Your task to perform on an android device: Go to wifi settings Image 0: 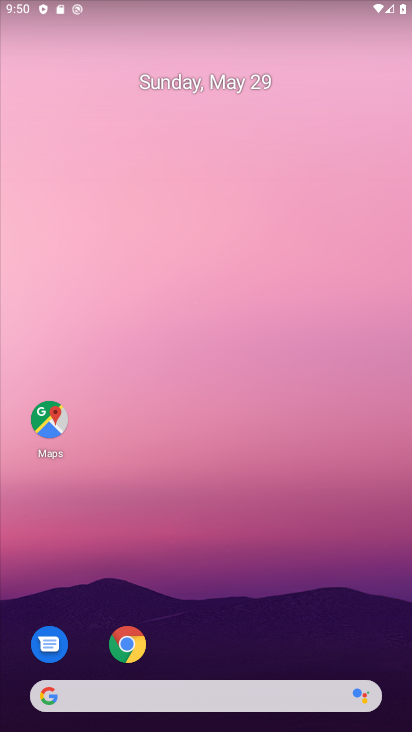
Step 0: drag from (124, 726) to (141, 119)
Your task to perform on an android device: Go to wifi settings Image 1: 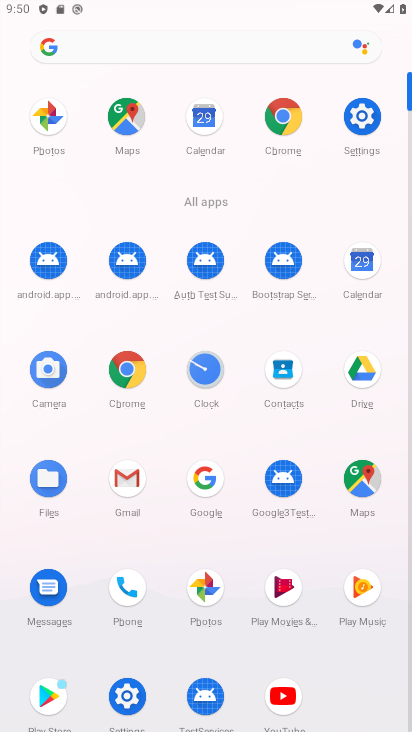
Step 1: click (369, 124)
Your task to perform on an android device: Go to wifi settings Image 2: 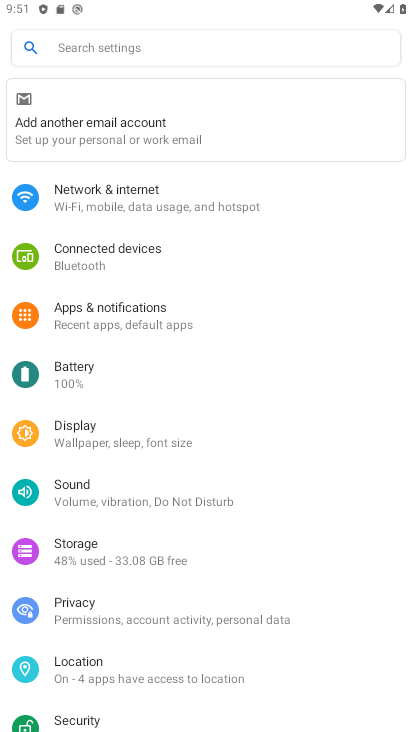
Step 2: click (73, 188)
Your task to perform on an android device: Go to wifi settings Image 3: 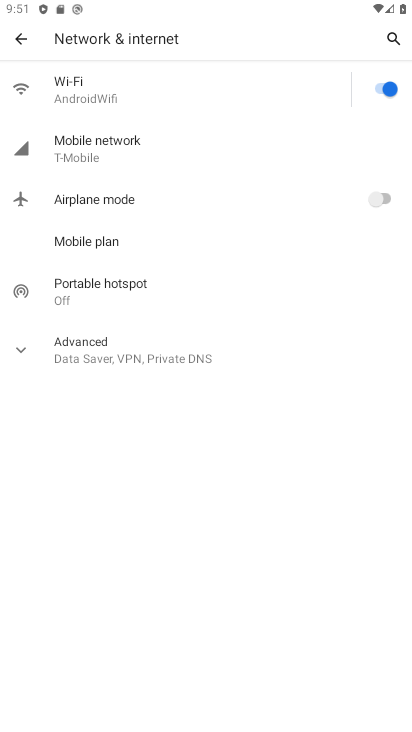
Step 3: click (141, 106)
Your task to perform on an android device: Go to wifi settings Image 4: 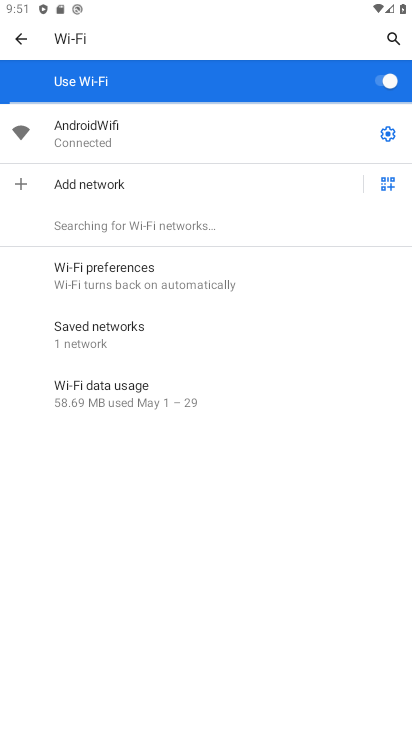
Step 4: task complete